Your task to perform on an android device: What's the weather going to be tomorrow? Image 0: 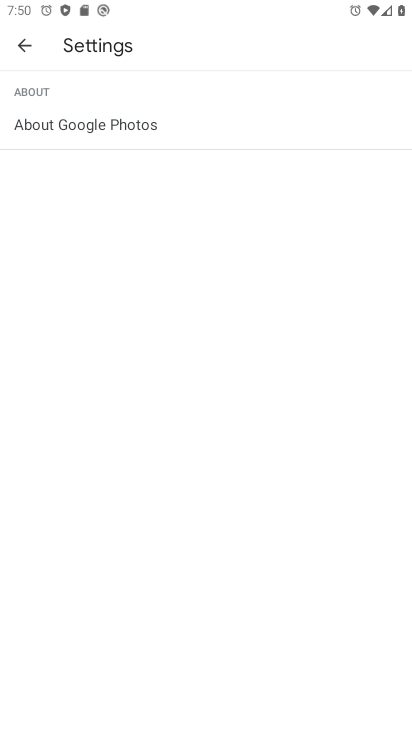
Step 0: task impossible